Your task to perform on an android device: set default search engine in the chrome app Image 0: 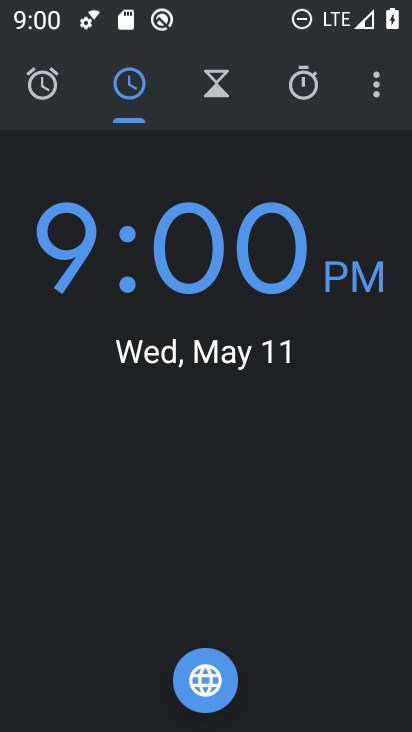
Step 0: press home button
Your task to perform on an android device: set default search engine in the chrome app Image 1: 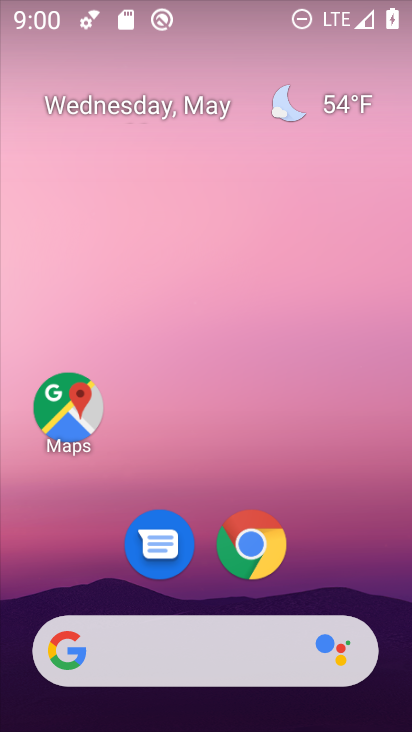
Step 1: click (249, 557)
Your task to perform on an android device: set default search engine in the chrome app Image 2: 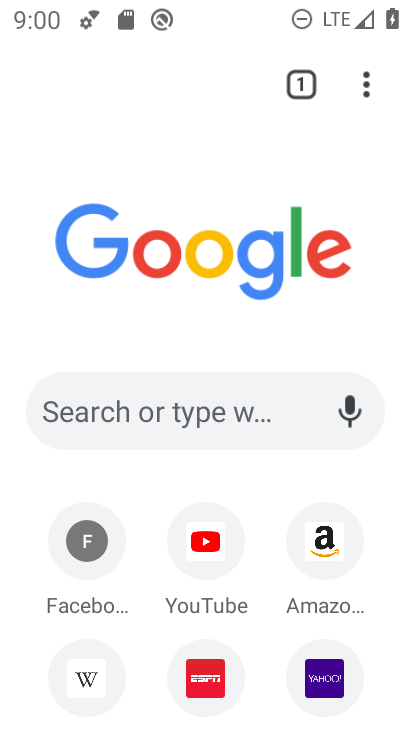
Step 2: click (374, 71)
Your task to perform on an android device: set default search engine in the chrome app Image 3: 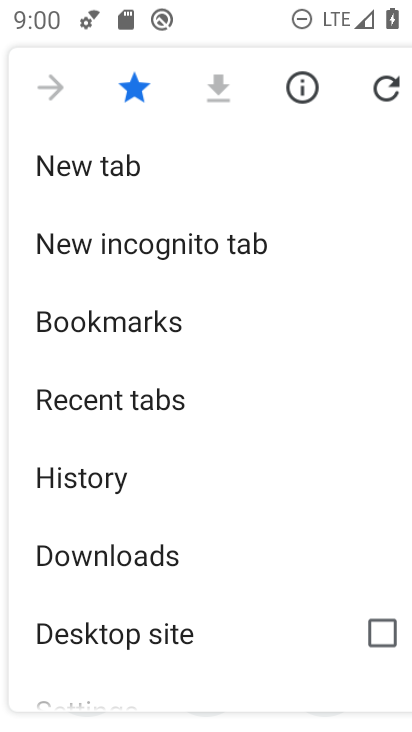
Step 3: drag from (143, 646) to (207, 300)
Your task to perform on an android device: set default search engine in the chrome app Image 4: 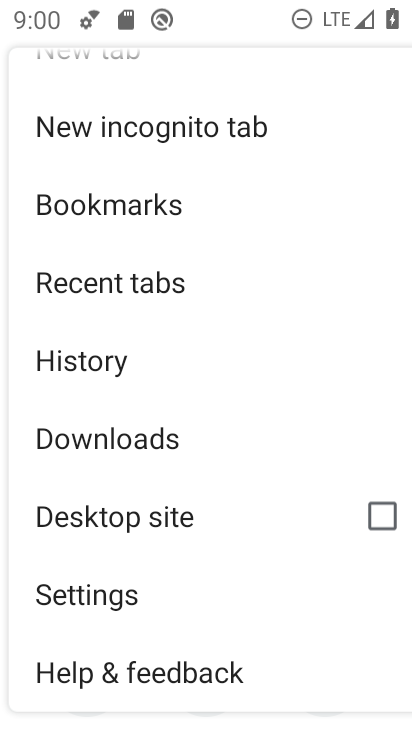
Step 4: click (124, 614)
Your task to perform on an android device: set default search engine in the chrome app Image 5: 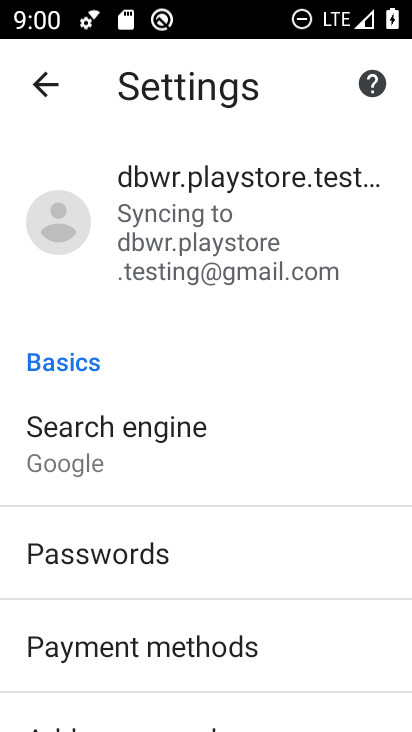
Step 5: click (137, 479)
Your task to perform on an android device: set default search engine in the chrome app Image 6: 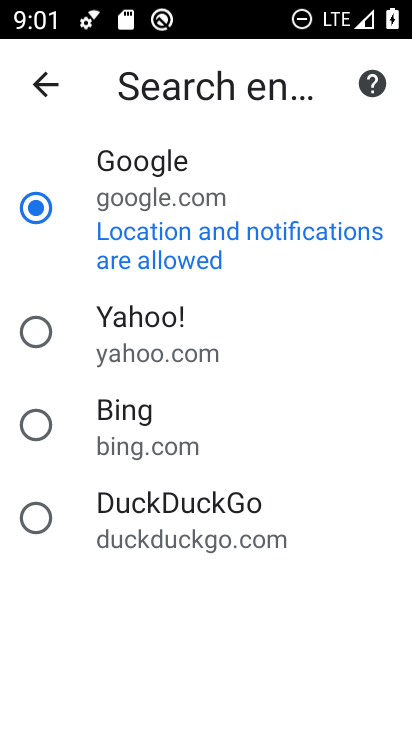
Step 6: click (161, 492)
Your task to perform on an android device: set default search engine in the chrome app Image 7: 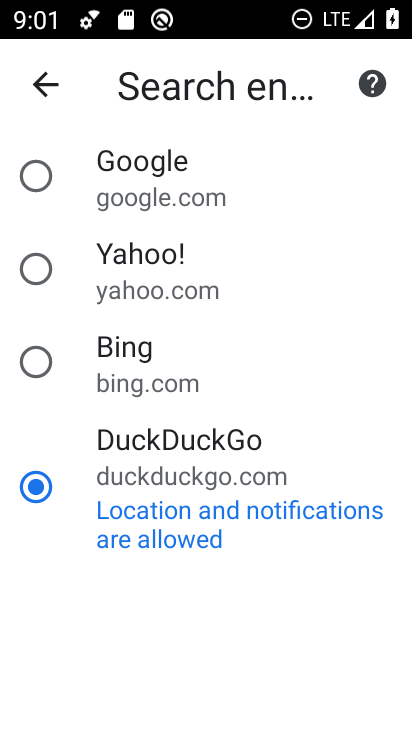
Step 7: task complete